Your task to perform on an android device: Is it going to rain tomorrow? Image 0: 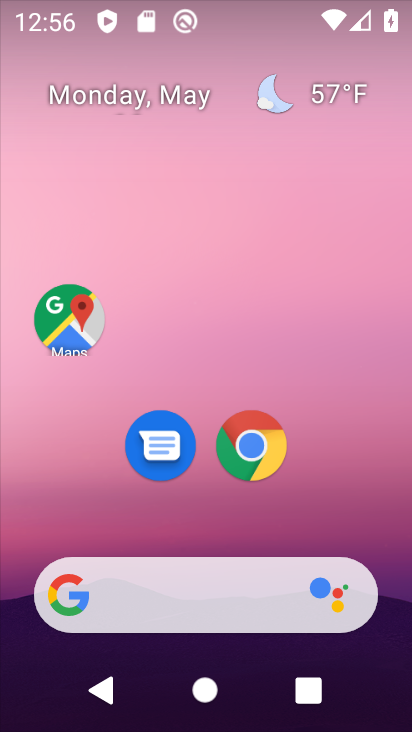
Step 0: drag from (411, 637) to (343, 50)
Your task to perform on an android device: Is it going to rain tomorrow? Image 1: 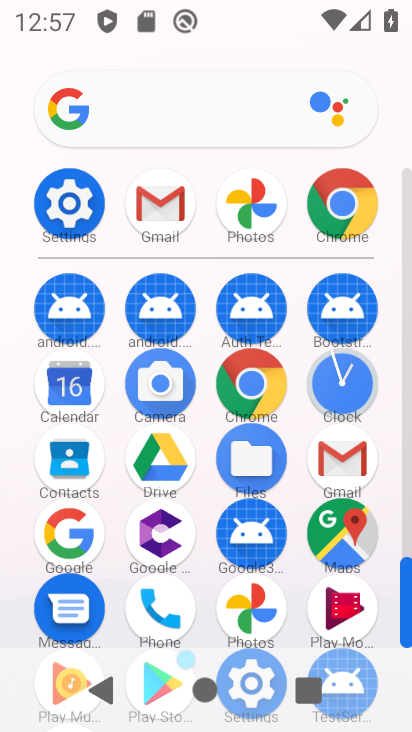
Step 1: click (64, 547)
Your task to perform on an android device: Is it going to rain tomorrow? Image 2: 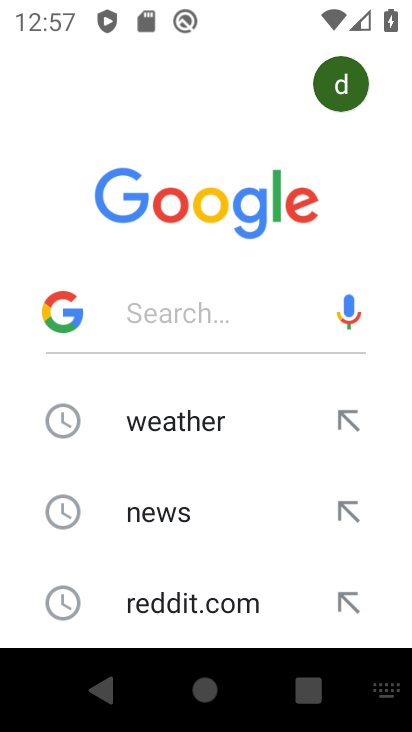
Step 2: drag from (131, 552) to (170, 173)
Your task to perform on an android device: Is it going to rain tomorrow? Image 3: 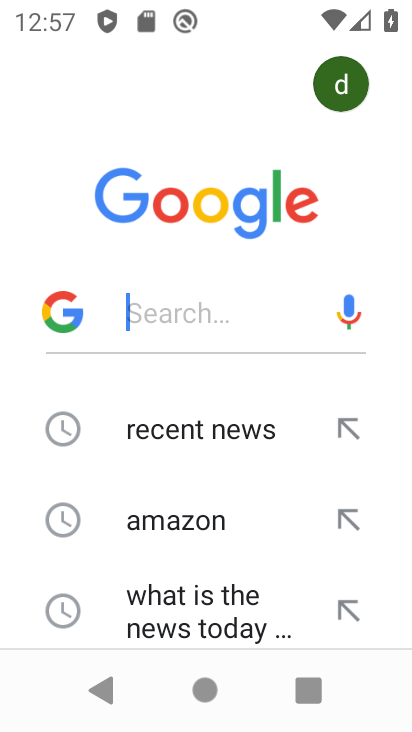
Step 3: drag from (240, 574) to (256, 359)
Your task to perform on an android device: Is it going to rain tomorrow? Image 4: 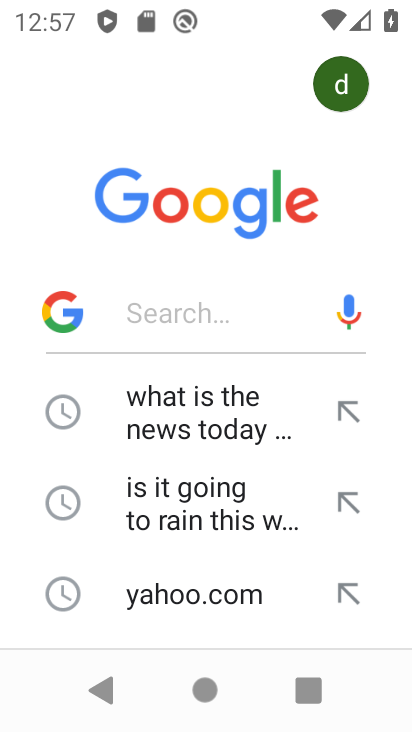
Step 4: drag from (181, 559) to (216, 348)
Your task to perform on an android device: Is it going to rain tomorrow? Image 5: 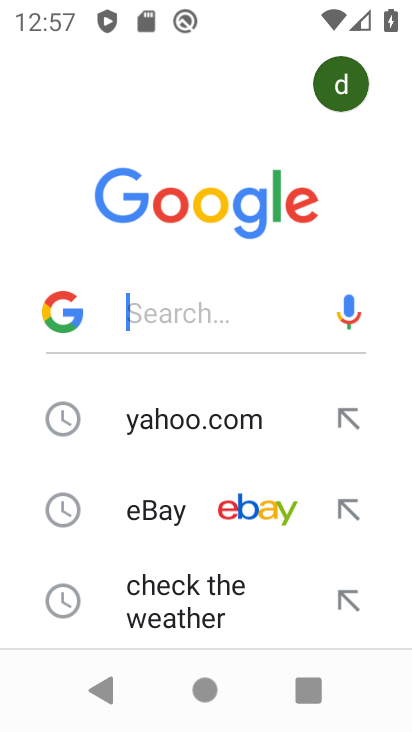
Step 5: drag from (151, 662) to (229, 325)
Your task to perform on an android device: Is it going to rain tomorrow? Image 6: 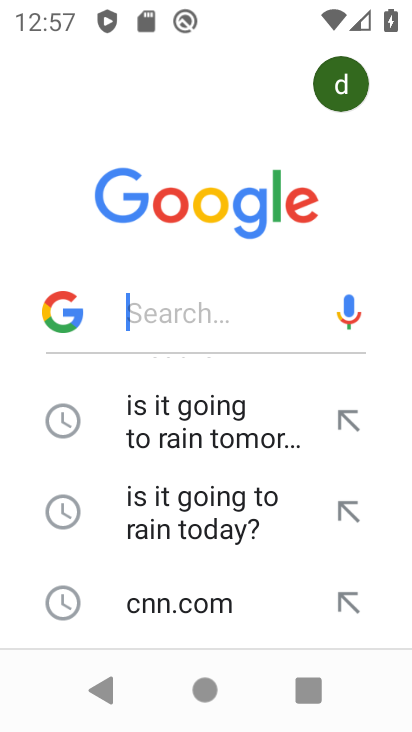
Step 6: click (237, 428)
Your task to perform on an android device: Is it going to rain tomorrow? Image 7: 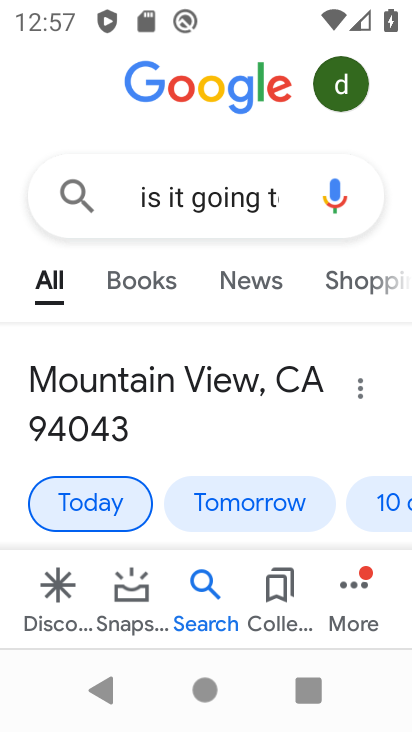
Step 7: task complete